Your task to perform on an android device: Toggle the flashlight Image 0: 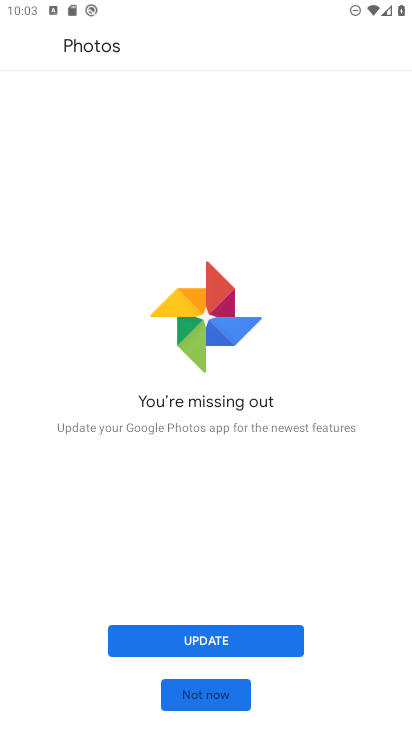
Step 0: press home button
Your task to perform on an android device: Toggle the flashlight Image 1: 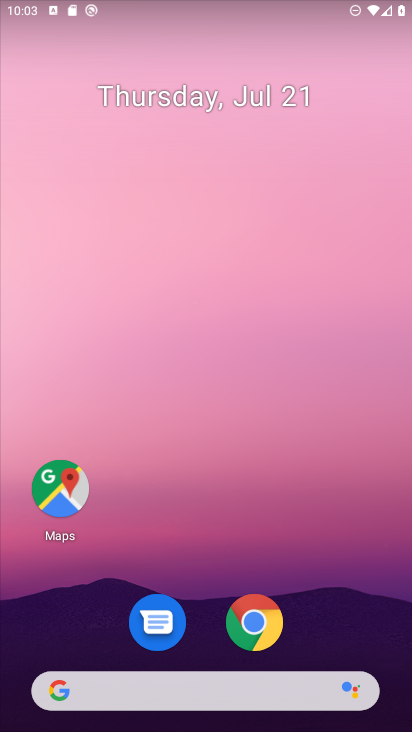
Step 1: task complete